Your task to perform on an android device: turn off javascript in the chrome app Image 0: 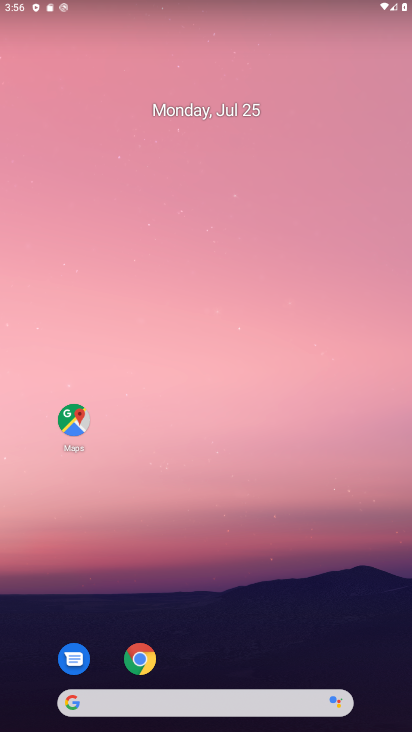
Step 0: click (132, 654)
Your task to perform on an android device: turn off javascript in the chrome app Image 1: 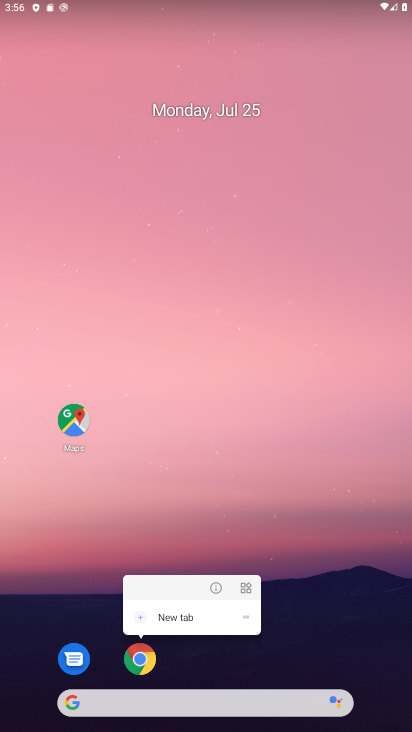
Step 1: click (145, 657)
Your task to perform on an android device: turn off javascript in the chrome app Image 2: 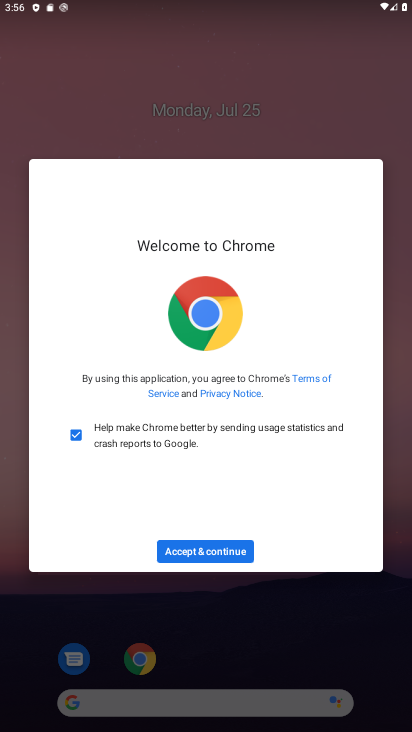
Step 2: click (187, 542)
Your task to perform on an android device: turn off javascript in the chrome app Image 3: 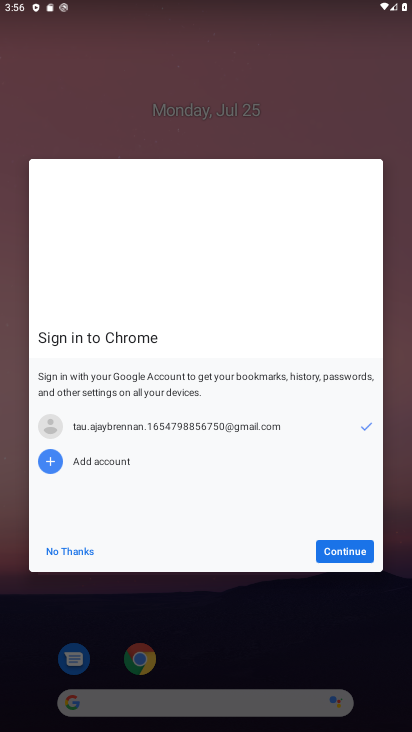
Step 3: click (337, 549)
Your task to perform on an android device: turn off javascript in the chrome app Image 4: 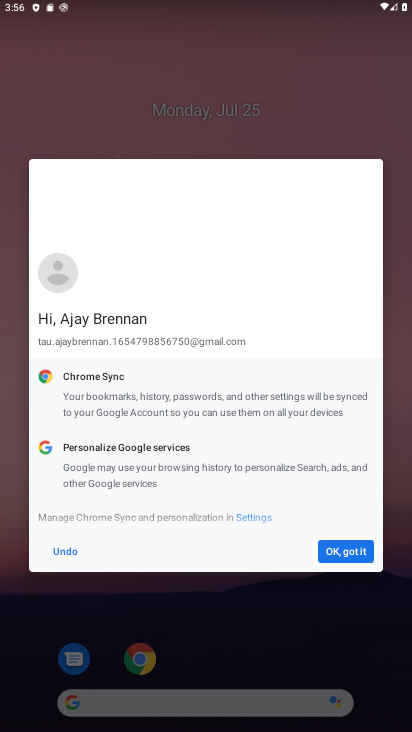
Step 4: click (337, 549)
Your task to perform on an android device: turn off javascript in the chrome app Image 5: 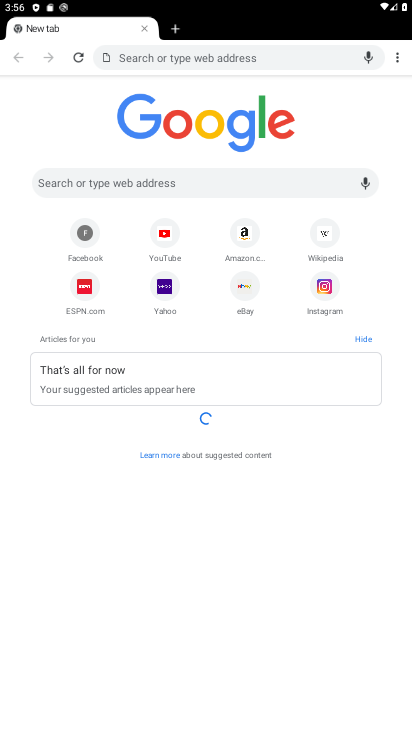
Step 5: click (390, 60)
Your task to perform on an android device: turn off javascript in the chrome app Image 6: 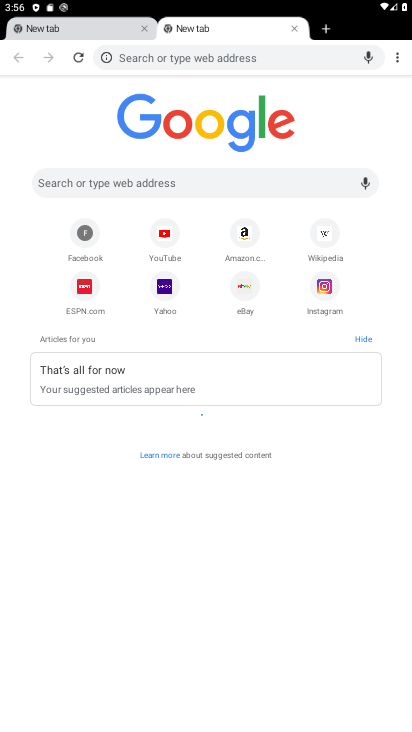
Step 6: click (402, 63)
Your task to perform on an android device: turn off javascript in the chrome app Image 7: 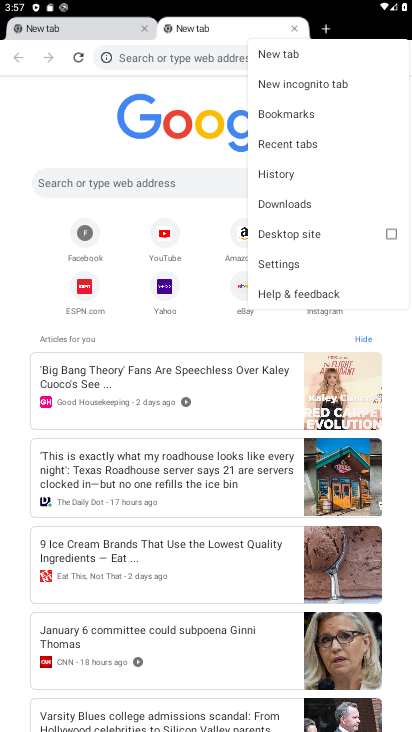
Step 7: click (322, 265)
Your task to perform on an android device: turn off javascript in the chrome app Image 8: 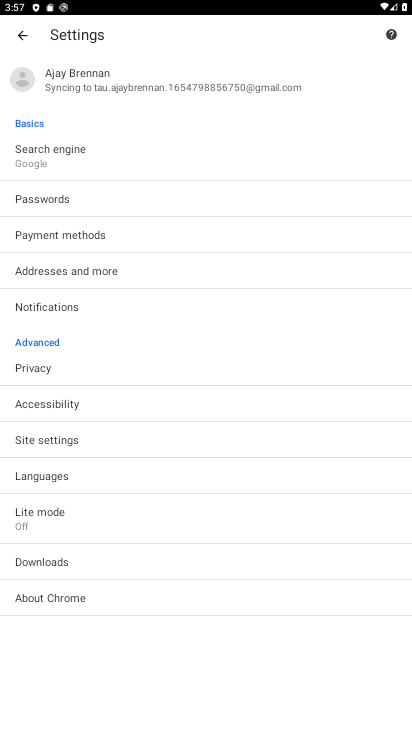
Step 8: click (64, 448)
Your task to perform on an android device: turn off javascript in the chrome app Image 9: 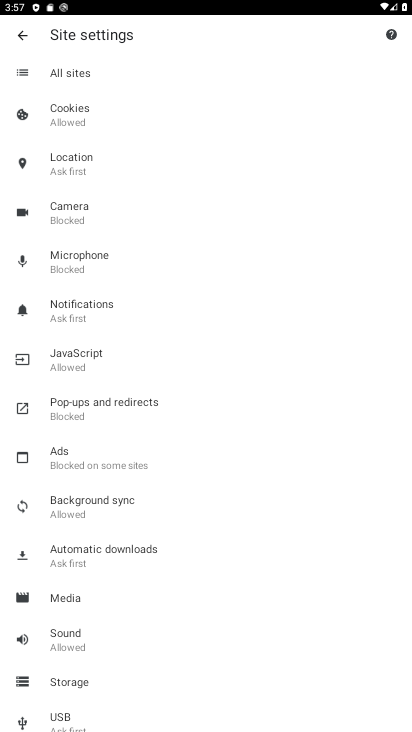
Step 9: click (84, 372)
Your task to perform on an android device: turn off javascript in the chrome app Image 10: 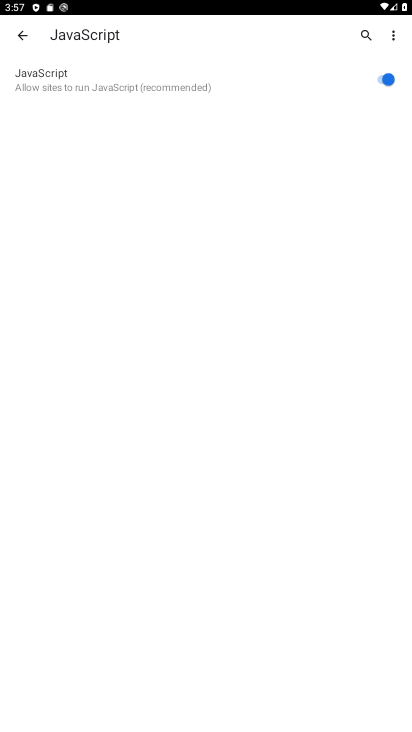
Step 10: click (381, 71)
Your task to perform on an android device: turn off javascript in the chrome app Image 11: 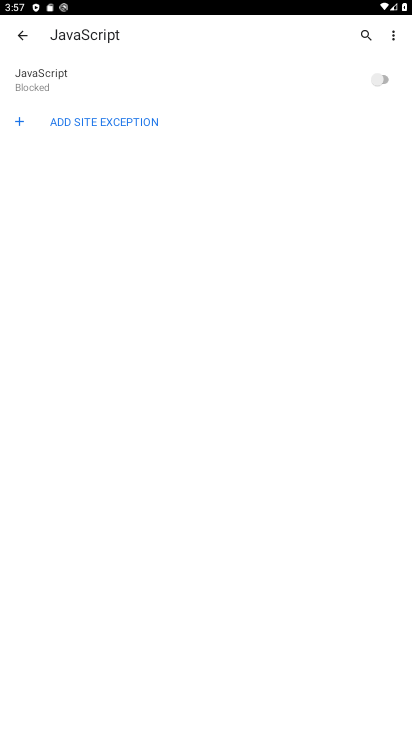
Step 11: task complete